Your task to perform on an android device: Open settings on Google Maps Image 0: 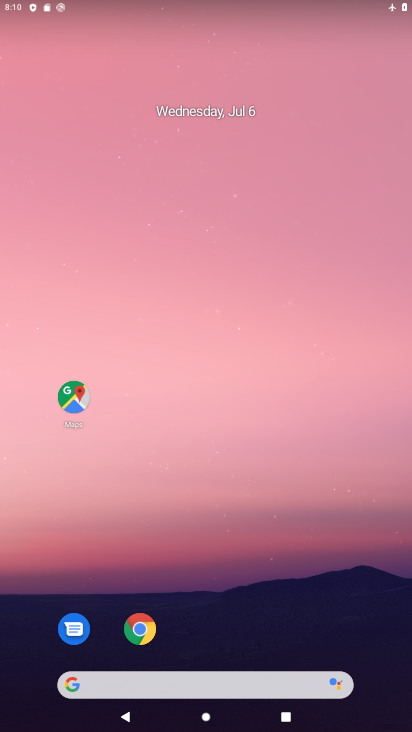
Step 0: drag from (41, 617) to (340, 54)
Your task to perform on an android device: Open settings on Google Maps Image 1: 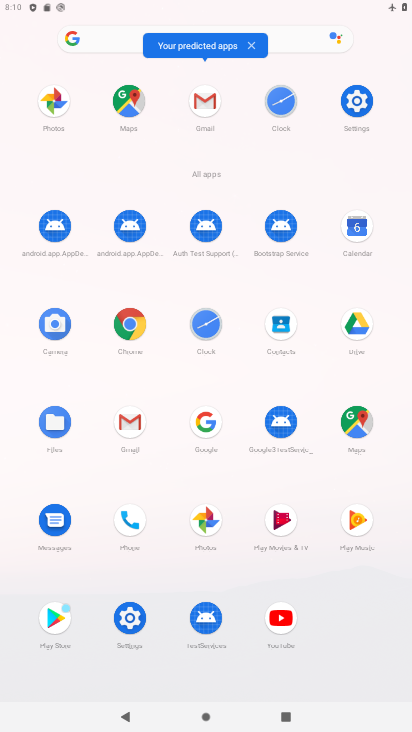
Step 1: click (362, 425)
Your task to perform on an android device: Open settings on Google Maps Image 2: 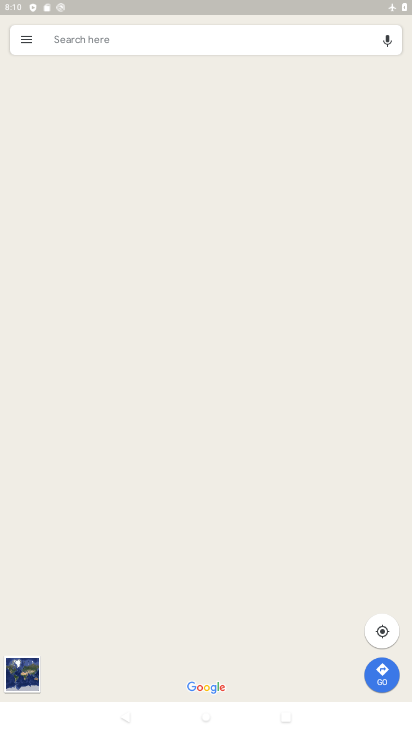
Step 2: click (25, 38)
Your task to perform on an android device: Open settings on Google Maps Image 3: 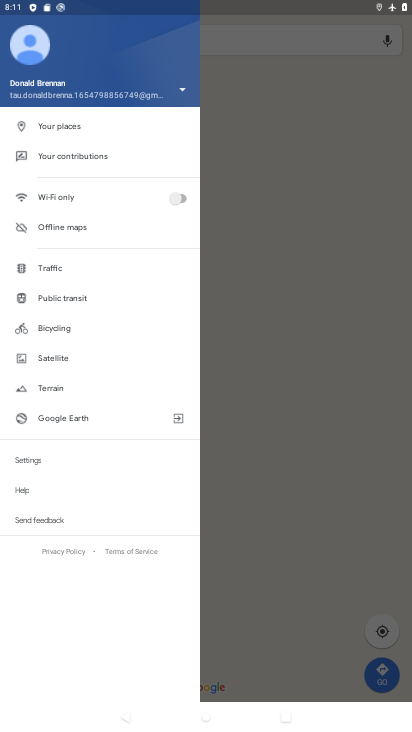
Step 3: click (36, 465)
Your task to perform on an android device: Open settings on Google Maps Image 4: 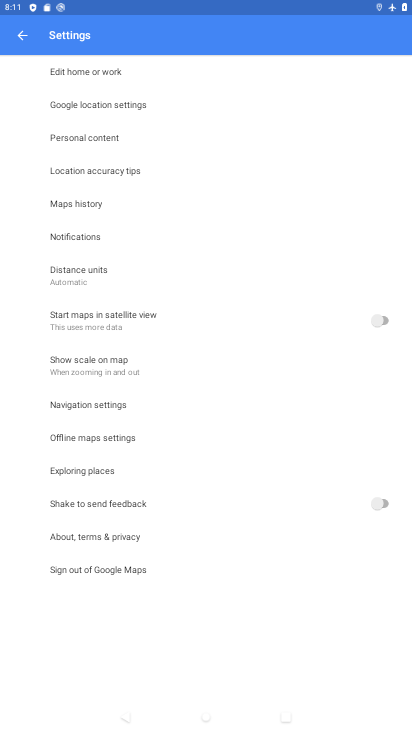
Step 4: task complete